Your task to perform on an android device: Open Android settings Image 0: 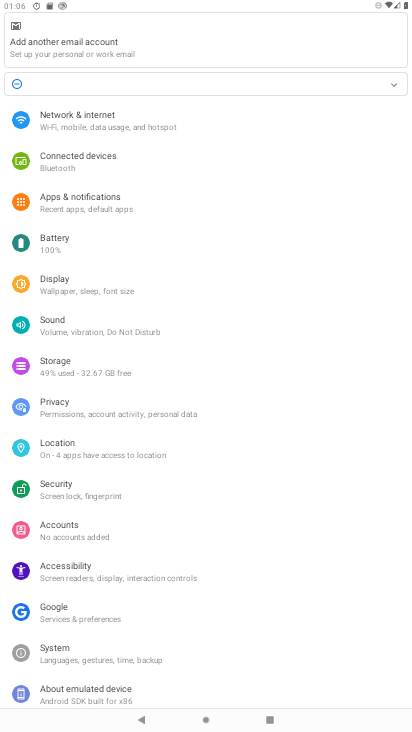
Step 0: drag from (183, 651) to (195, 339)
Your task to perform on an android device: Open Android settings Image 1: 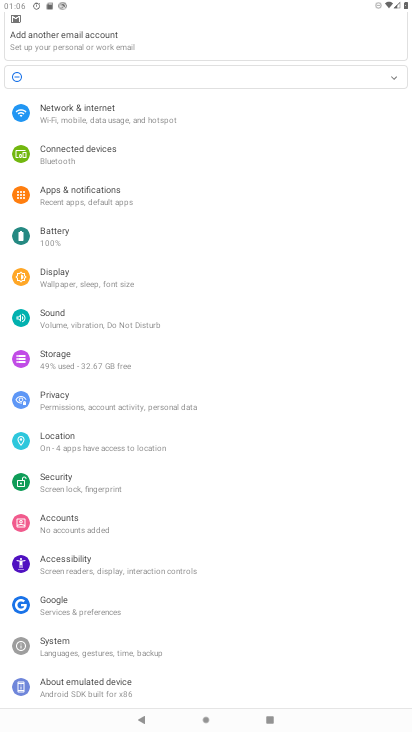
Step 1: click (50, 681)
Your task to perform on an android device: Open Android settings Image 2: 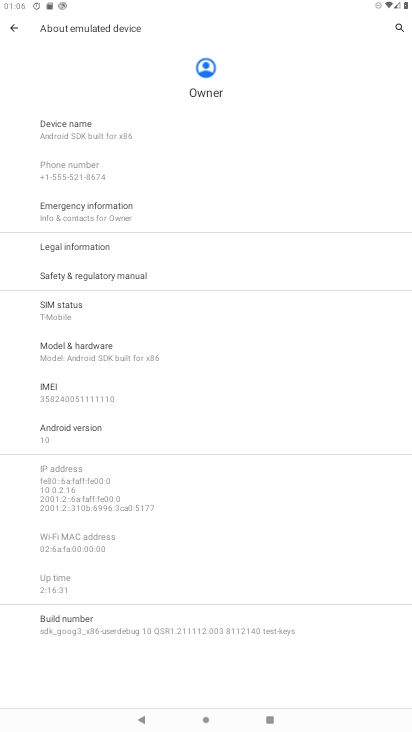
Step 2: drag from (196, 583) to (207, 355)
Your task to perform on an android device: Open Android settings Image 3: 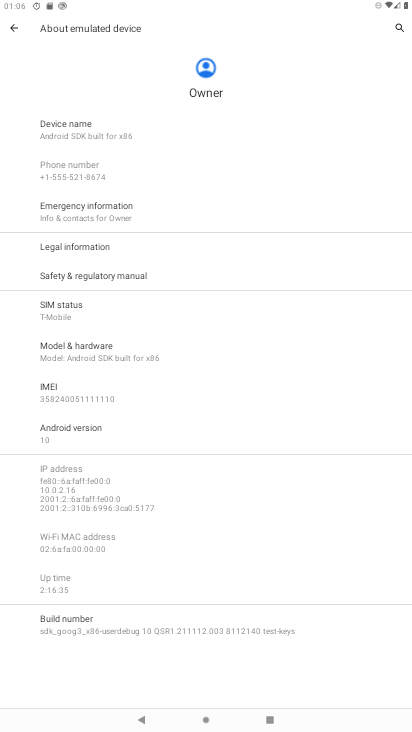
Step 3: click (79, 437)
Your task to perform on an android device: Open Android settings Image 4: 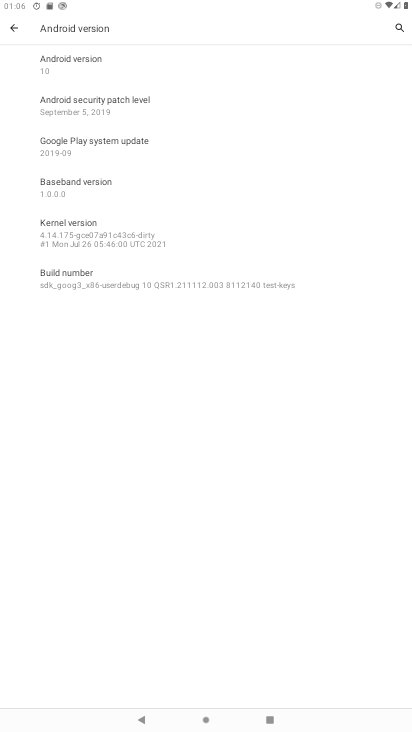
Step 4: task complete